Your task to perform on an android device: see tabs open on other devices in the chrome app Image 0: 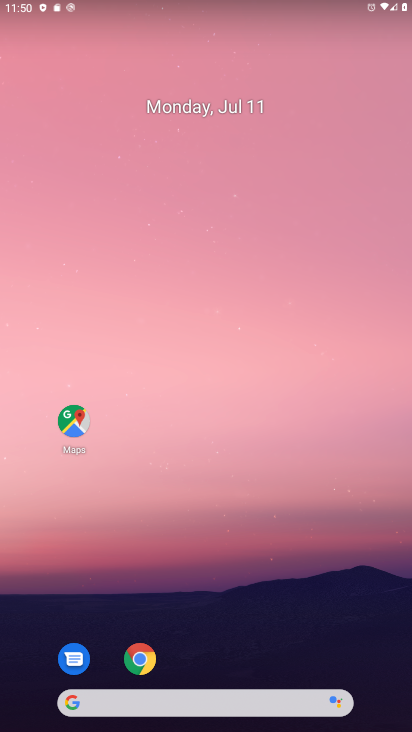
Step 0: click (197, 191)
Your task to perform on an android device: see tabs open on other devices in the chrome app Image 1: 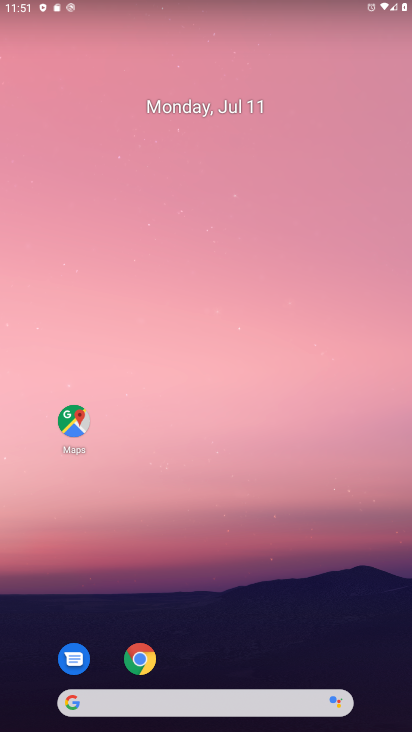
Step 1: drag from (231, 635) to (216, 60)
Your task to perform on an android device: see tabs open on other devices in the chrome app Image 2: 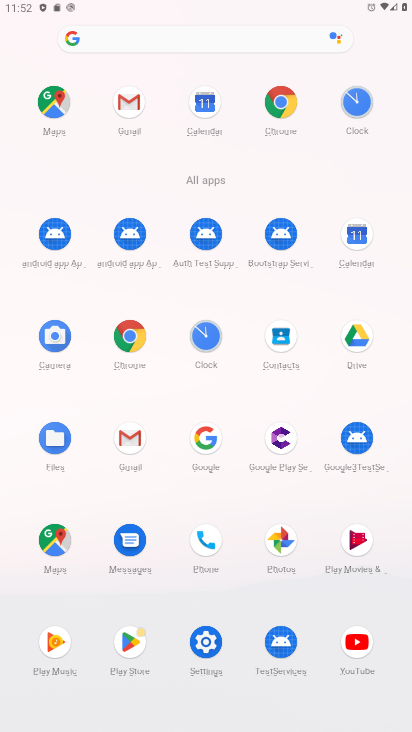
Step 2: click (281, 111)
Your task to perform on an android device: see tabs open on other devices in the chrome app Image 3: 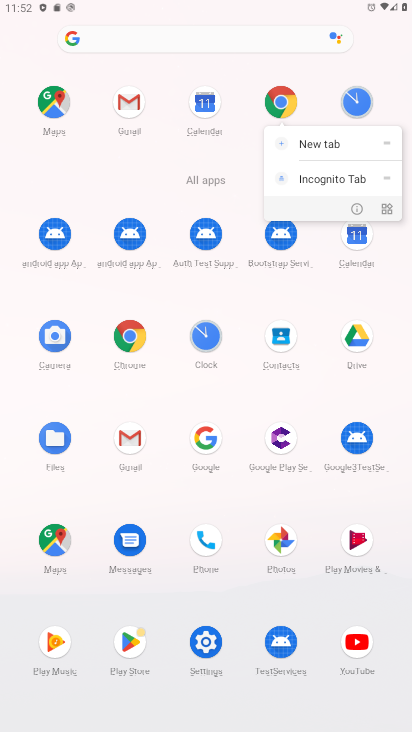
Step 3: click (353, 212)
Your task to perform on an android device: see tabs open on other devices in the chrome app Image 4: 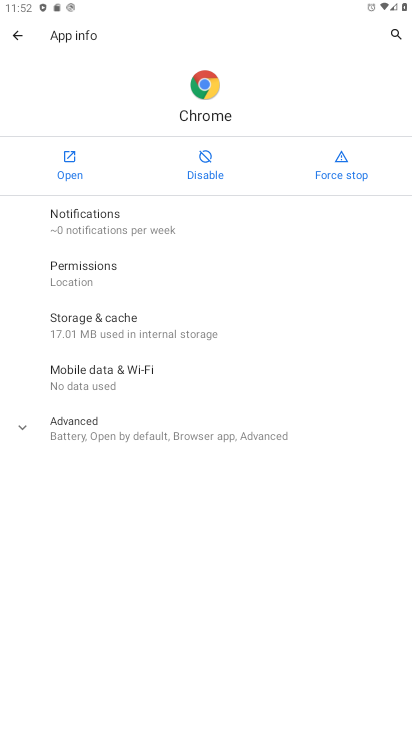
Step 4: click (71, 149)
Your task to perform on an android device: see tabs open on other devices in the chrome app Image 5: 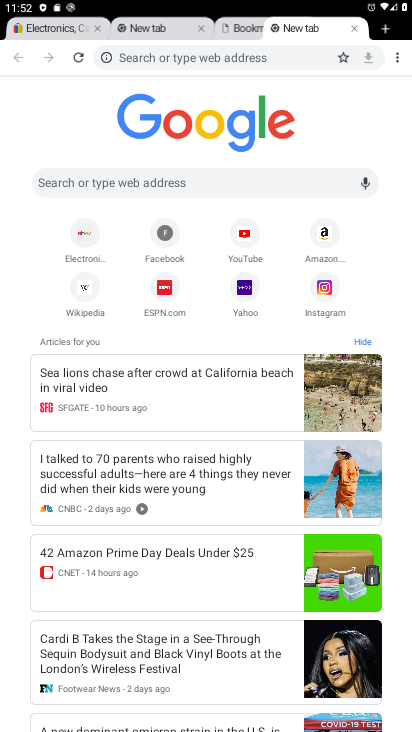
Step 5: click (397, 47)
Your task to perform on an android device: see tabs open on other devices in the chrome app Image 6: 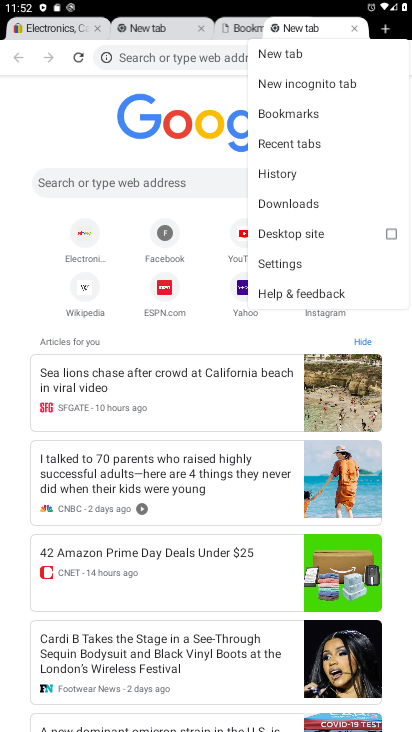
Step 6: click (289, 261)
Your task to perform on an android device: see tabs open on other devices in the chrome app Image 7: 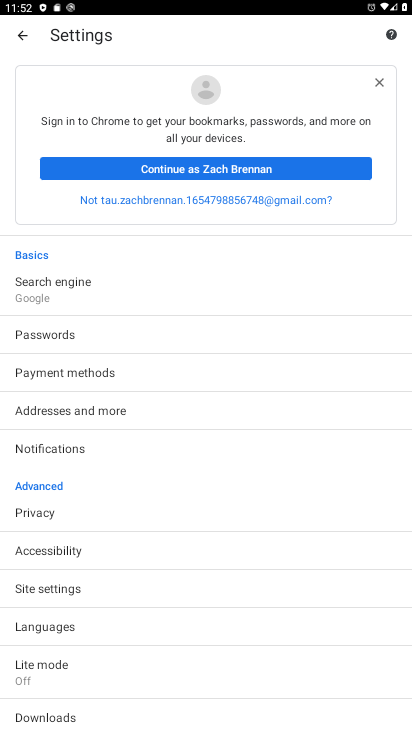
Step 7: click (378, 79)
Your task to perform on an android device: see tabs open on other devices in the chrome app Image 8: 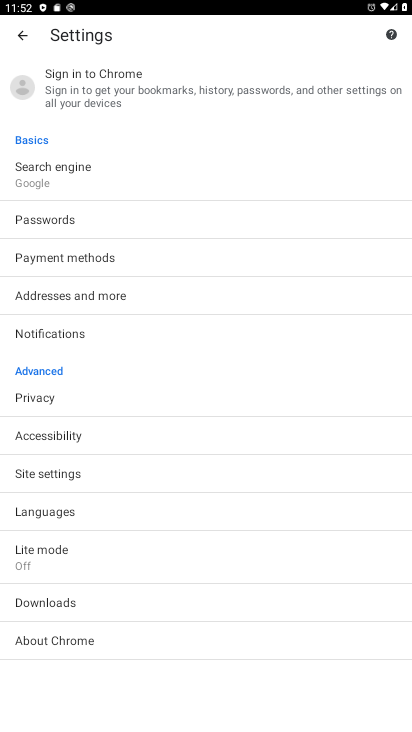
Step 8: click (27, 41)
Your task to perform on an android device: see tabs open on other devices in the chrome app Image 9: 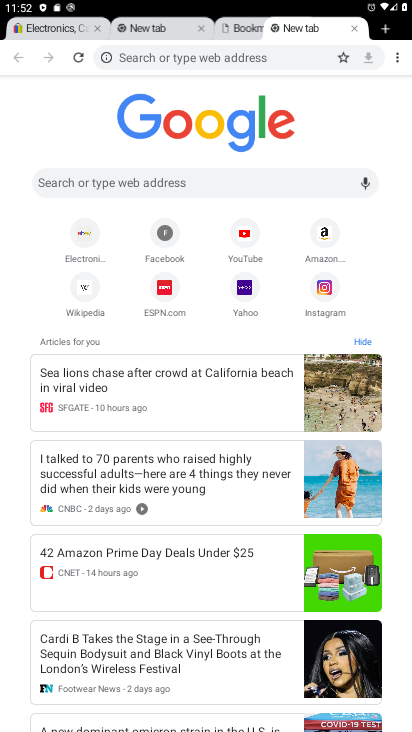
Step 9: click (398, 53)
Your task to perform on an android device: see tabs open on other devices in the chrome app Image 10: 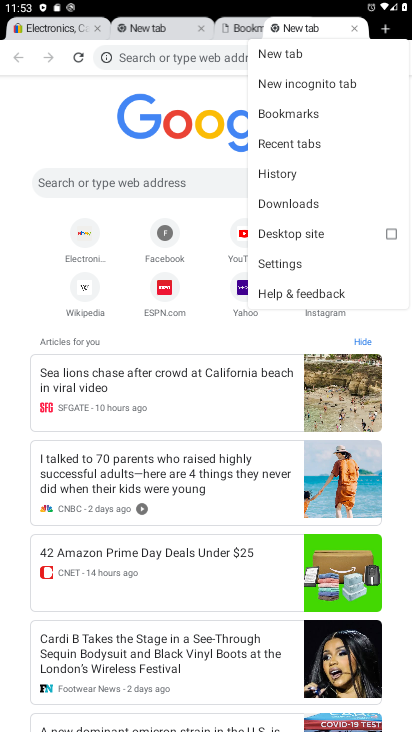
Step 10: drag from (207, 440) to (250, 251)
Your task to perform on an android device: see tabs open on other devices in the chrome app Image 11: 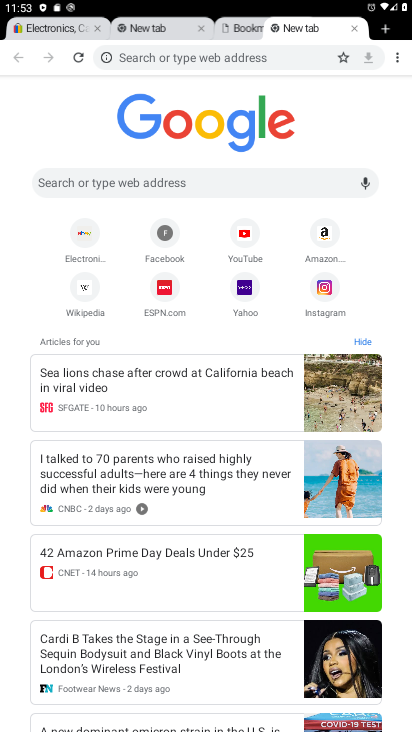
Step 11: click (401, 49)
Your task to perform on an android device: see tabs open on other devices in the chrome app Image 12: 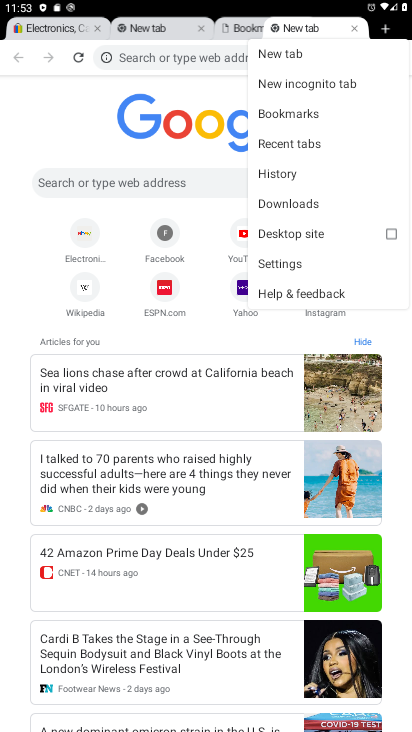
Step 12: click (321, 142)
Your task to perform on an android device: see tabs open on other devices in the chrome app Image 13: 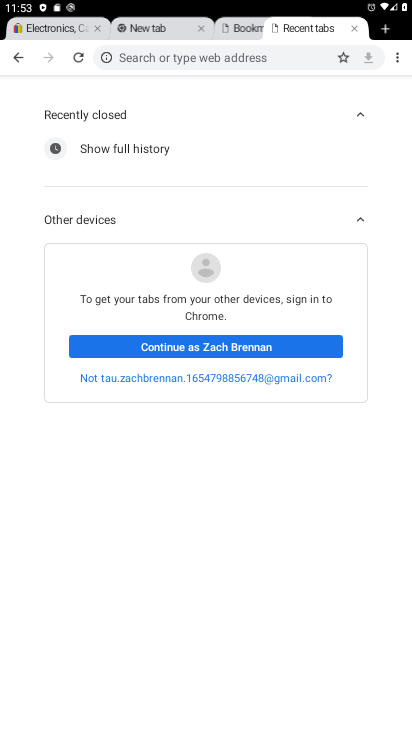
Step 13: task complete